Your task to perform on an android device: Go to location settings Image 0: 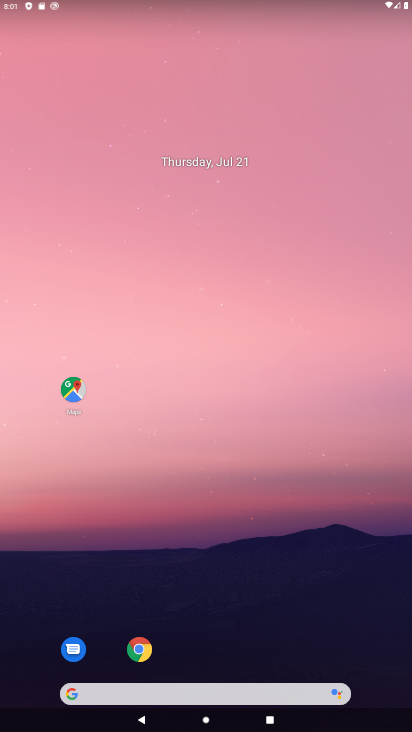
Step 0: drag from (232, 595) to (194, 58)
Your task to perform on an android device: Go to location settings Image 1: 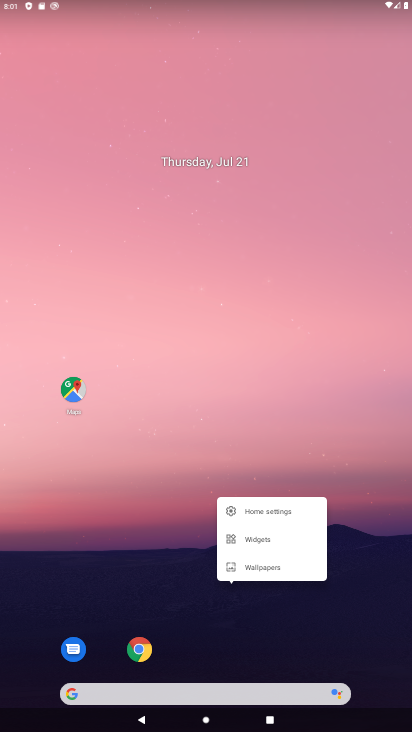
Step 1: drag from (318, 656) to (204, 7)
Your task to perform on an android device: Go to location settings Image 2: 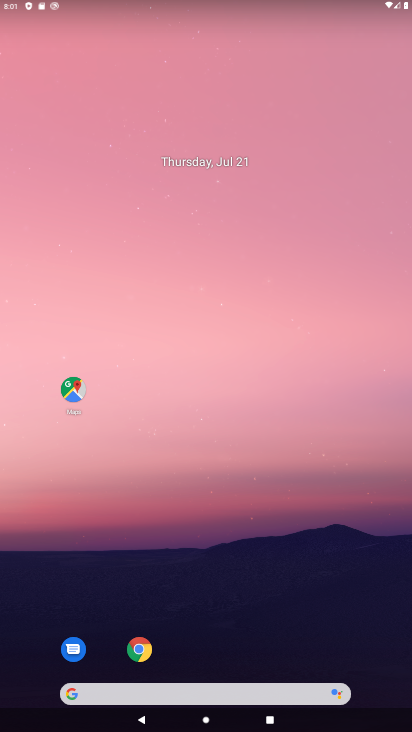
Step 2: drag from (250, 671) to (232, 10)
Your task to perform on an android device: Go to location settings Image 3: 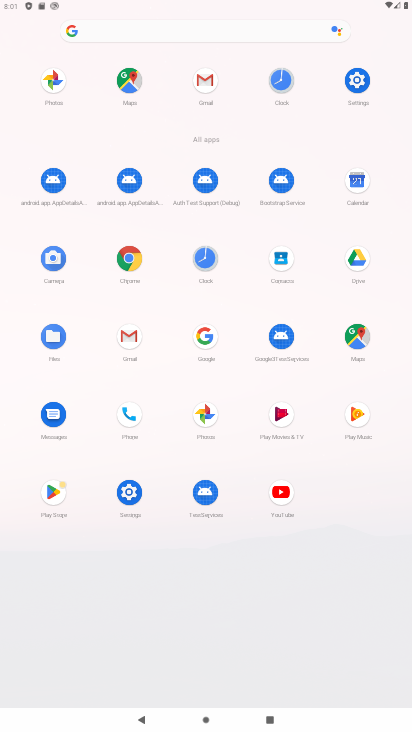
Step 3: click (364, 100)
Your task to perform on an android device: Go to location settings Image 4: 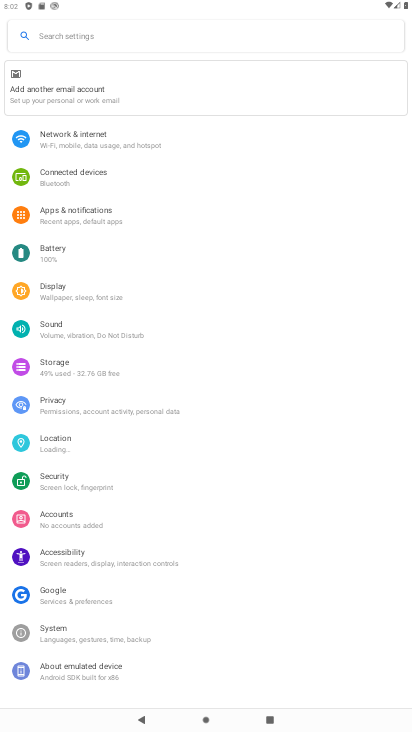
Step 4: click (102, 437)
Your task to perform on an android device: Go to location settings Image 5: 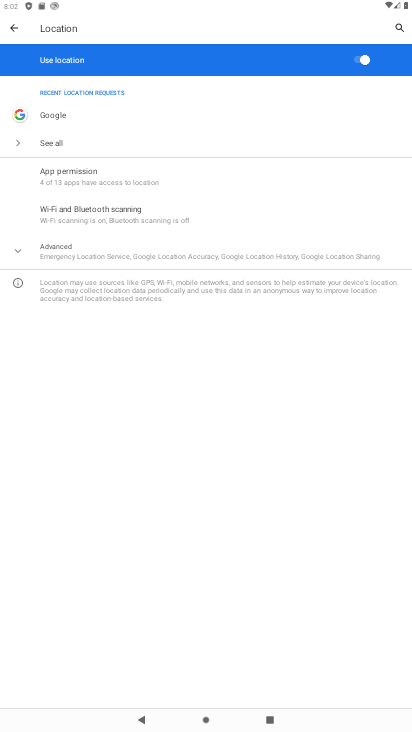
Step 5: task complete